Your task to perform on an android device: turn off translation in the chrome app Image 0: 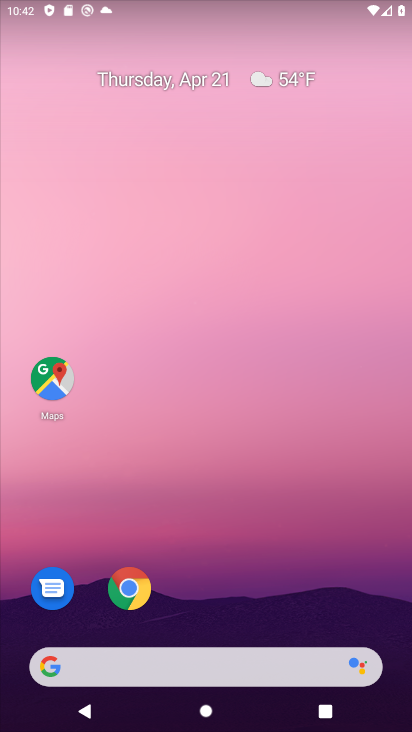
Step 0: click (121, 595)
Your task to perform on an android device: turn off translation in the chrome app Image 1: 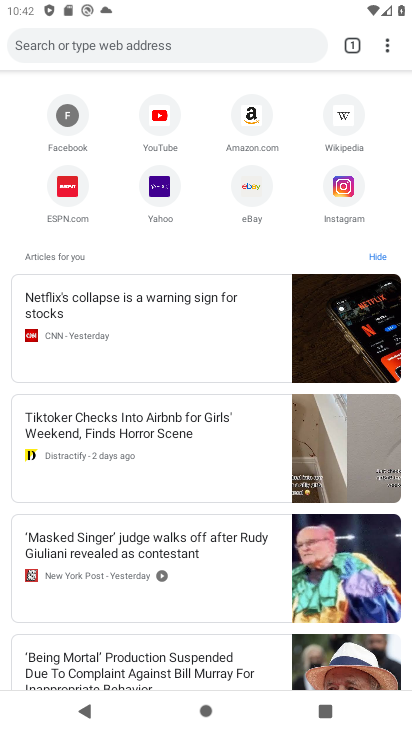
Step 1: click (391, 39)
Your task to perform on an android device: turn off translation in the chrome app Image 2: 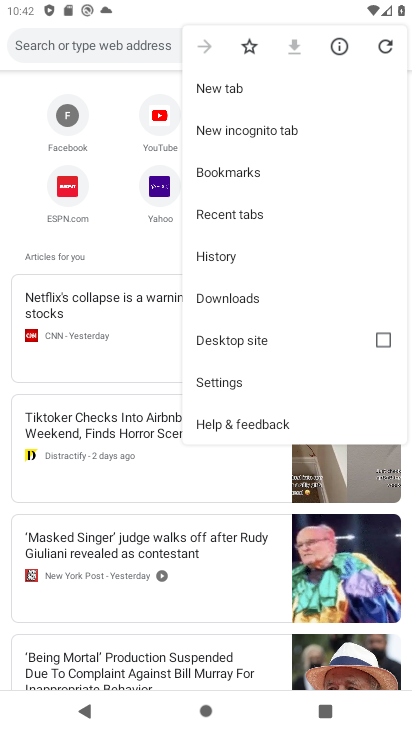
Step 2: click (247, 379)
Your task to perform on an android device: turn off translation in the chrome app Image 3: 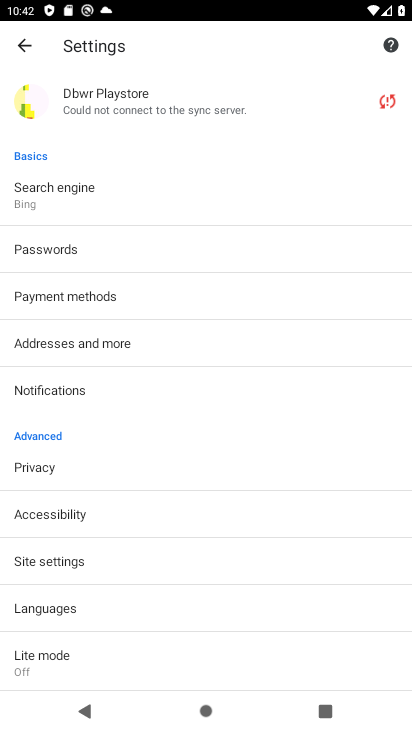
Step 3: click (72, 608)
Your task to perform on an android device: turn off translation in the chrome app Image 4: 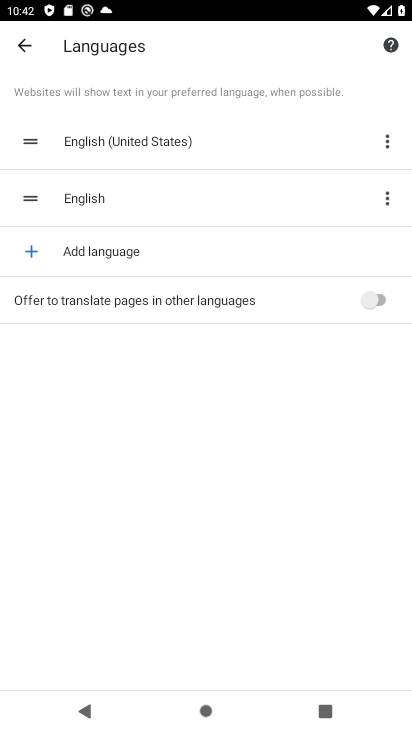
Step 4: task complete